Your task to perform on an android device: Show me recent news Image 0: 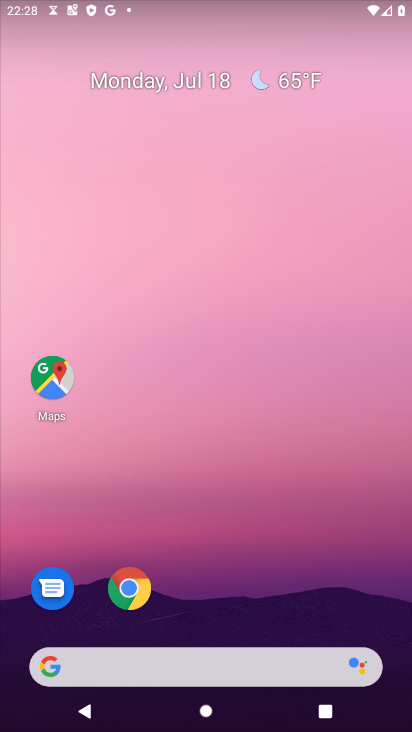
Step 0: drag from (175, 667) to (163, 28)
Your task to perform on an android device: Show me recent news Image 1: 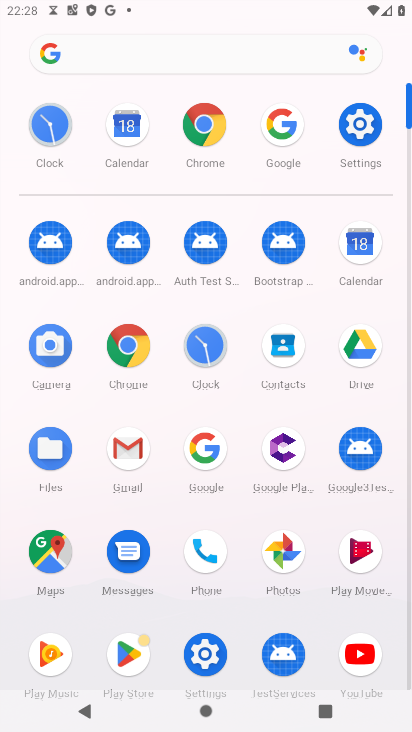
Step 1: click (280, 124)
Your task to perform on an android device: Show me recent news Image 2: 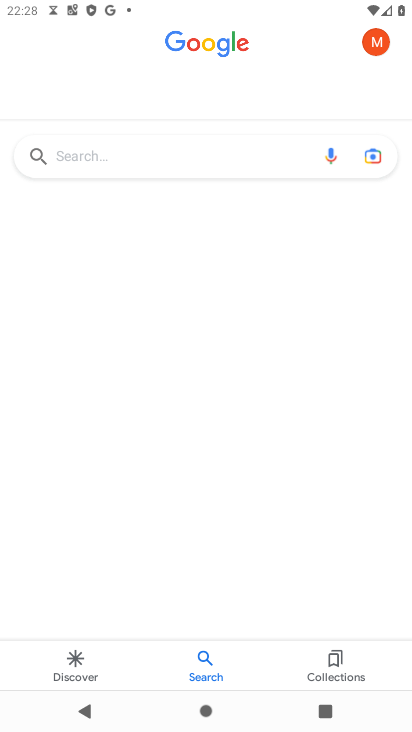
Step 2: click (253, 150)
Your task to perform on an android device: Show me recent news Image 3: 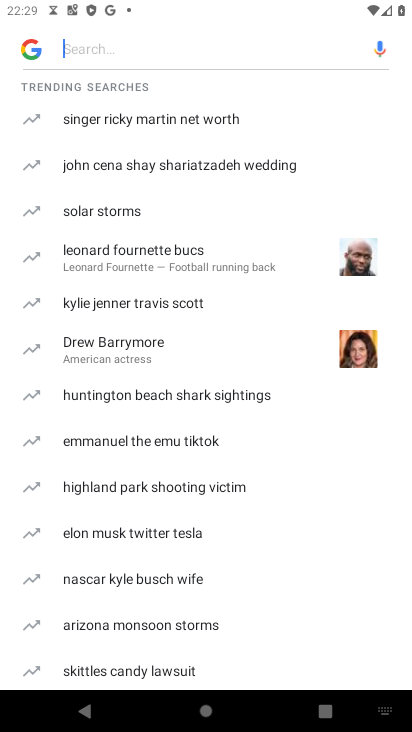
Step 3: type "recent news"
Your task to perform on an android device: Show me recent news Image 4: 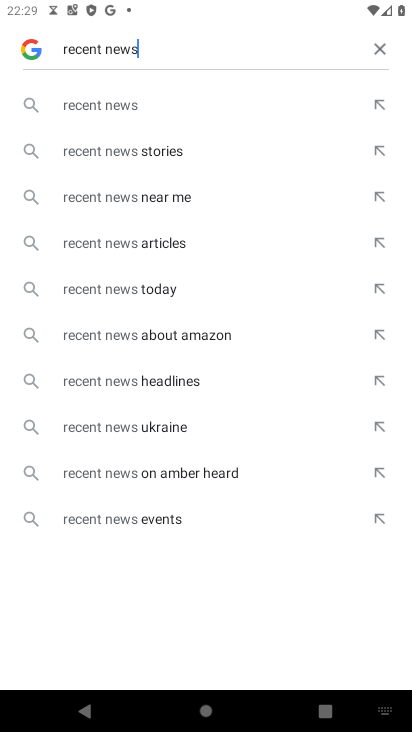
Step 4: click (112, 102)
Your task to perform on an android device: Show me recent news Image 5: 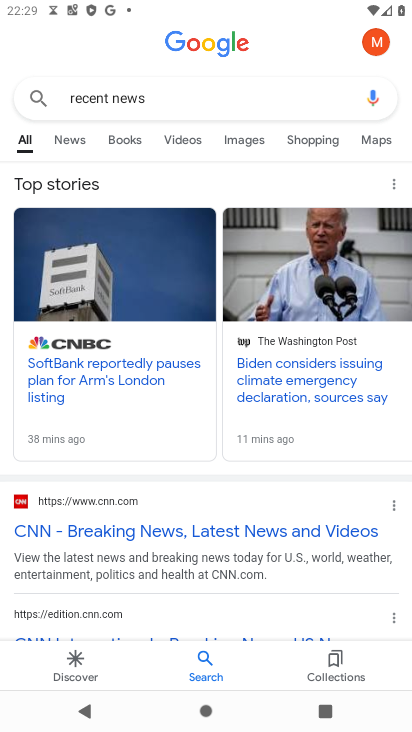
Step 5: click (71, 381)
Your task to perform on an android device: Show me recent news Image 6: 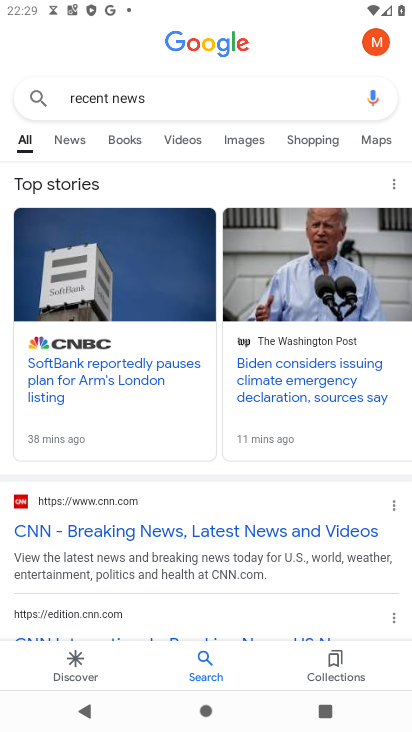
Step 6: click (52, 404)
Your task to perform on an android device: Show me recent news Image 7: 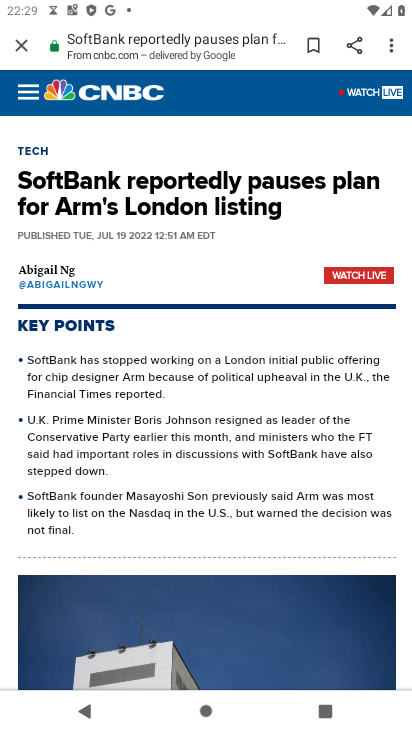
Step 7: task complete